Your task to perform on an android device: Open ESPN.com Image 0: 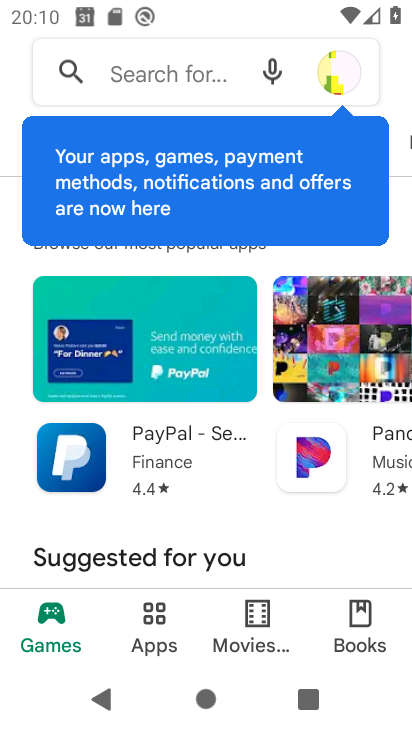
Step 0: press home button
Your task to perform on an android device: Open ESPN.com Image 1: 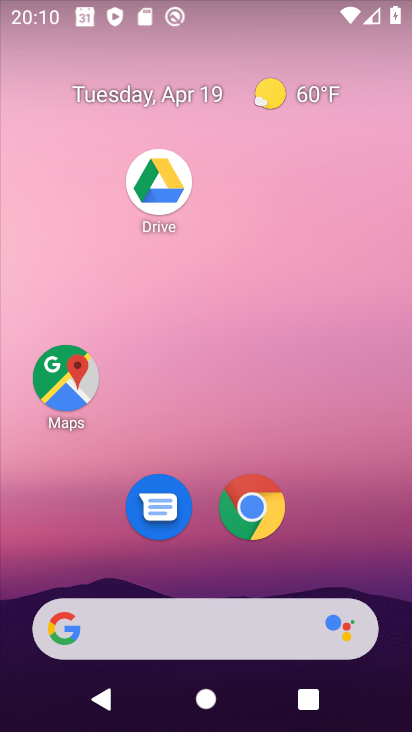
Step 1: drag from (326, 496) to (323, 125)
Your task to perform on an android device: Open ESPN.com Image 2: 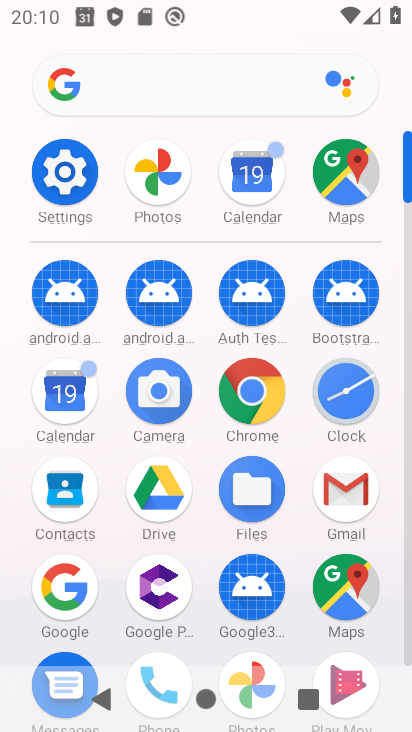
Step 2: click (266, 383)
Your task to perform on an android device: Open ESPN.com Image 3: 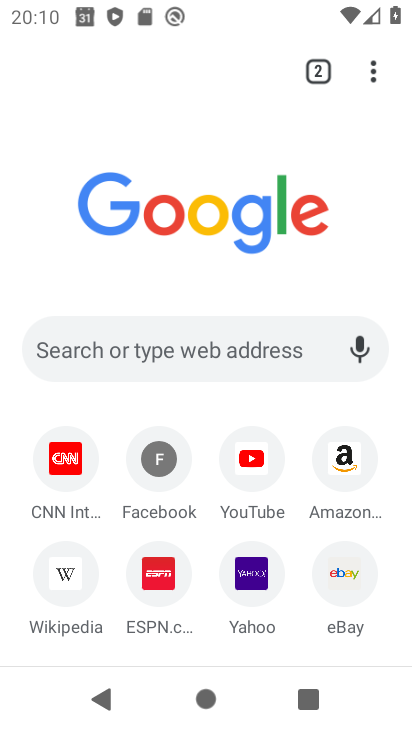
Step 3: click (260, 343)
Your task to perform on an android device: Open ESPN.com Image 4: 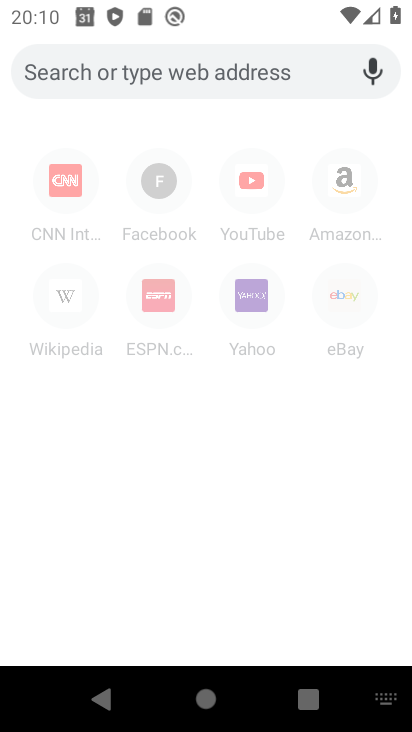
Step 4: type "ESPN.com"
Your task to perform on an android device: Open ESPN.com Image 5: 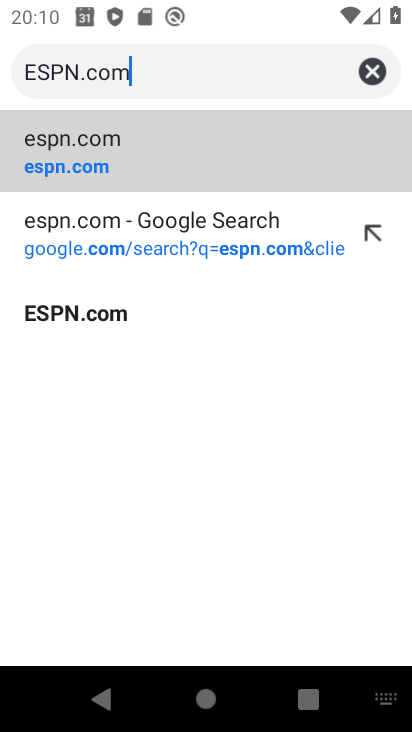
Step 5: click (117, 156)
Your task to perform on an android device: Open ESPN.com Image 6: 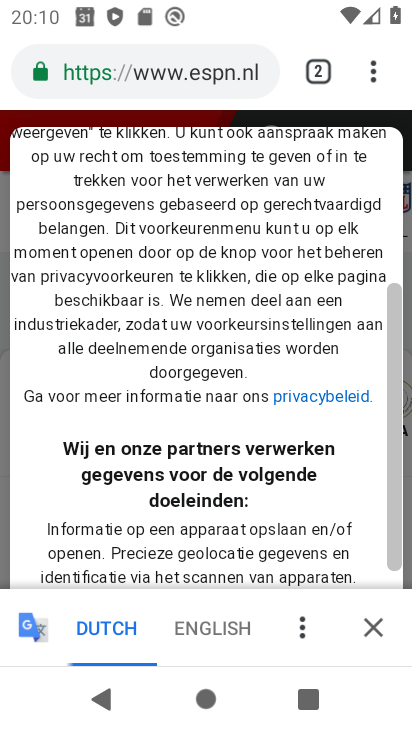
Step 6: task complete